Your task to perform on an android device: choose inbox layout in the gmail app Image 0: 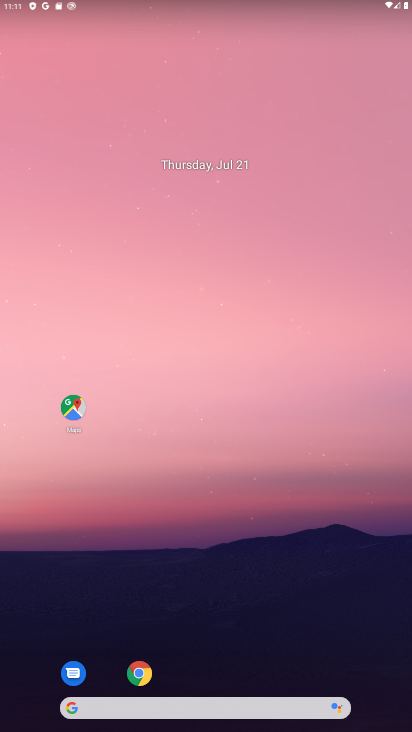
Step 0: drag from (208, 540) to (205, 41)
Your task to perform on an android device: choose inbox layout in the gmail app Image 1: 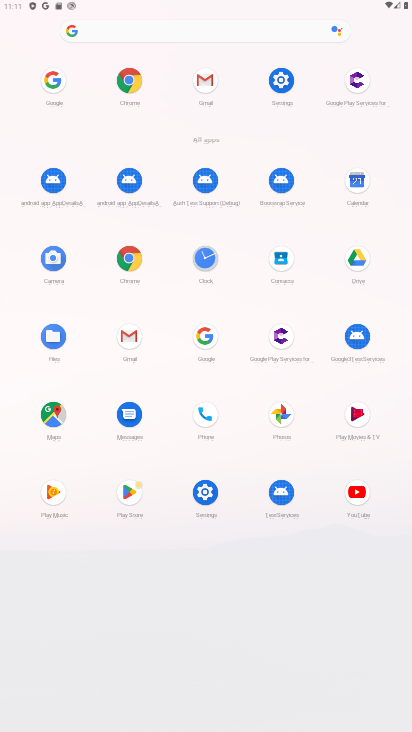
Step 1: click (123, 335)
Your task to perform on an android device: choose inbox layout in the gmail app Image 2: 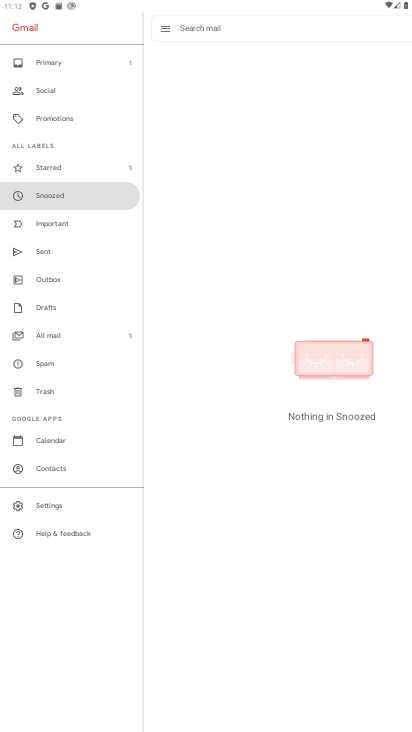
Step 2: click (45, 503)
Your task to perform on an android device: choose inbox layout in the gmail app Image 3: 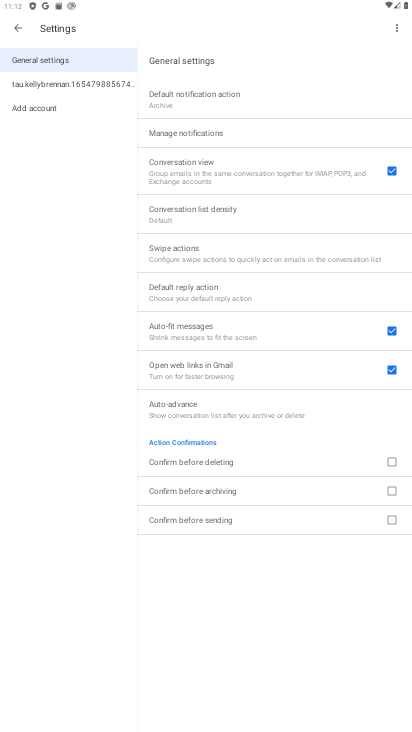
Step 3: click (61, 83)
Your task to perform on an android device: choose inbox layout in the gmail app Image 4: 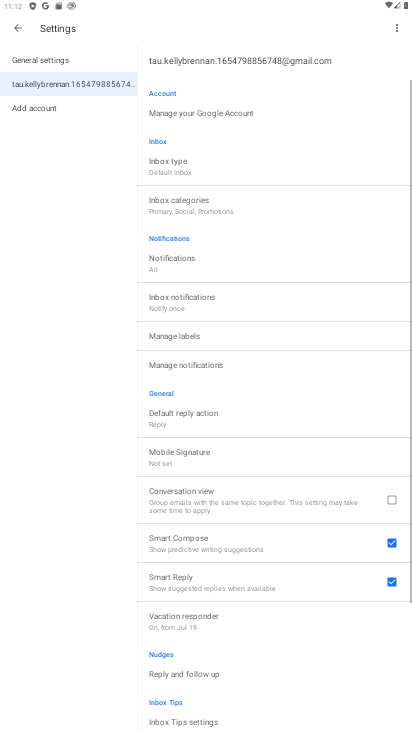
Step 4: click (189, 165)
Your task to perform on an android device: choose inbox layout in the gmail app Image 5: 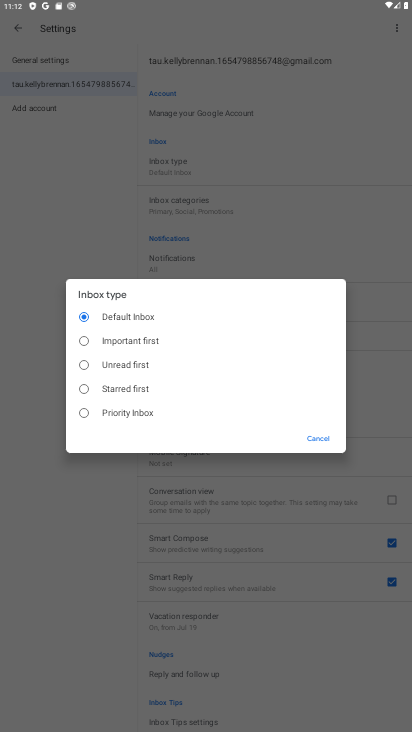
Step 5: click (87, 410)
Your task to perform on an android device: choose inbox layout in the gmail app Image 6: 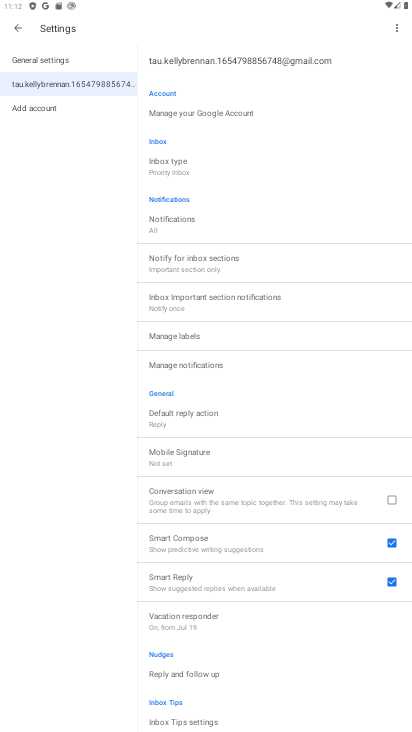
Step 6: task complete